Your task to perform on an android device: stop showing notifications on the lock screen Image 0: 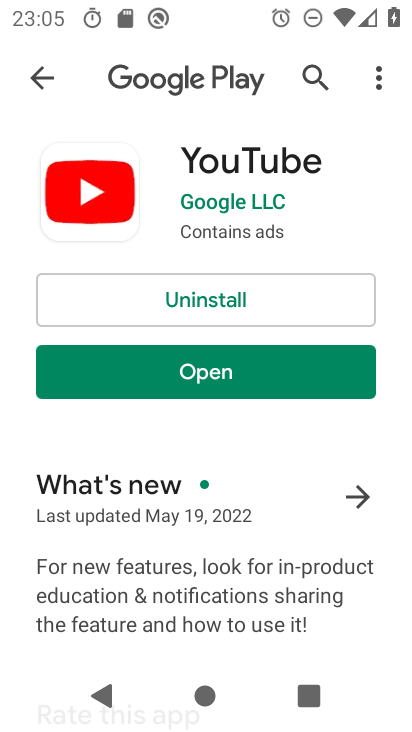
Step 0: press home button
Your task to perform on an android device: stop showing notifications on the lock screen Image 1: 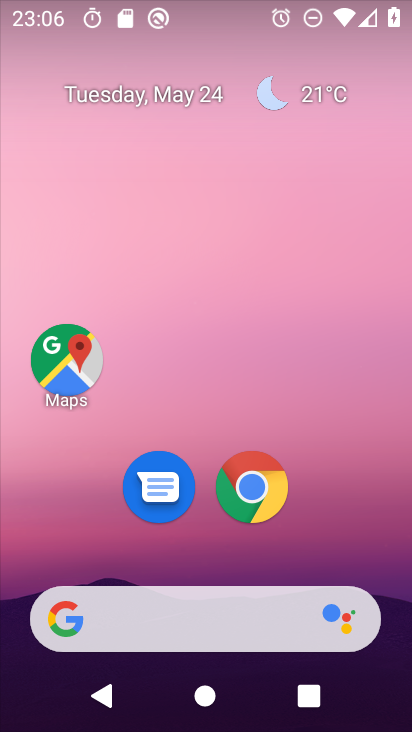
Step 1: drag from (325, 569) to (323, 12)
Your task to perform on an android device: stop showing notifications on the lock screen Image 2: 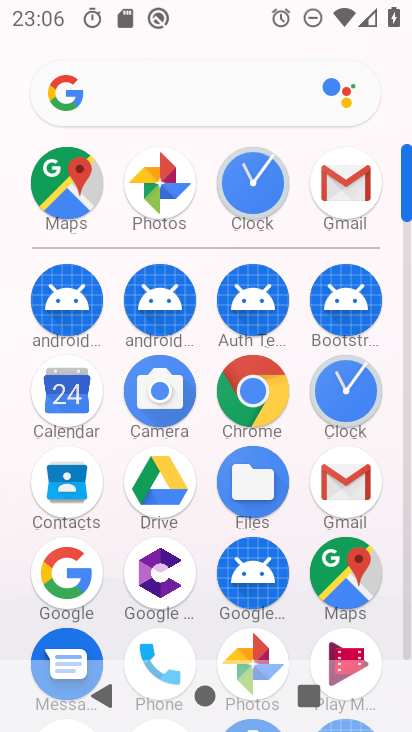
Step 2: click (406, 485)
Your task to perform on an android device: stop showing notifications on the lock screen Image 3: 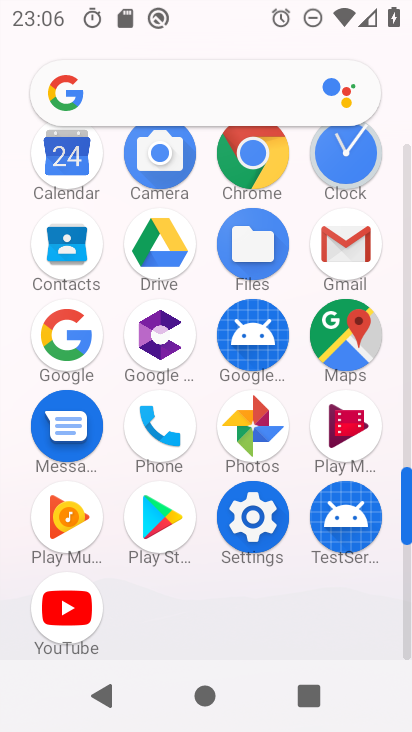
Step 3: click (260, 526)
Your task to perform on an android device: stop showing notifications on the lock screen Image 4: 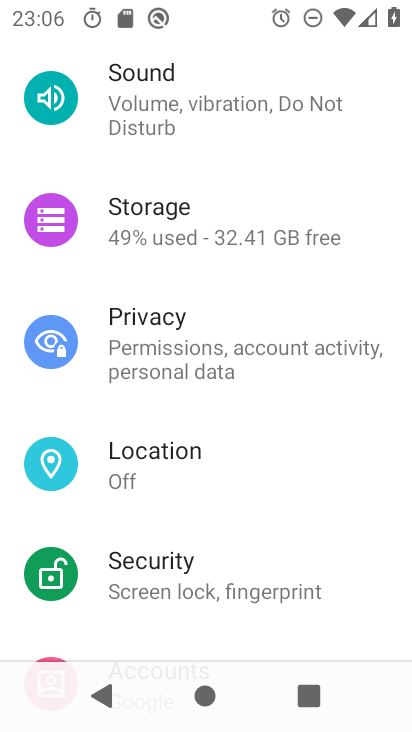
Step 4: drag from (243, 169) to (260, 664)
Your task to perform on an android device: stop showing notifications on the lock screen Image 5: 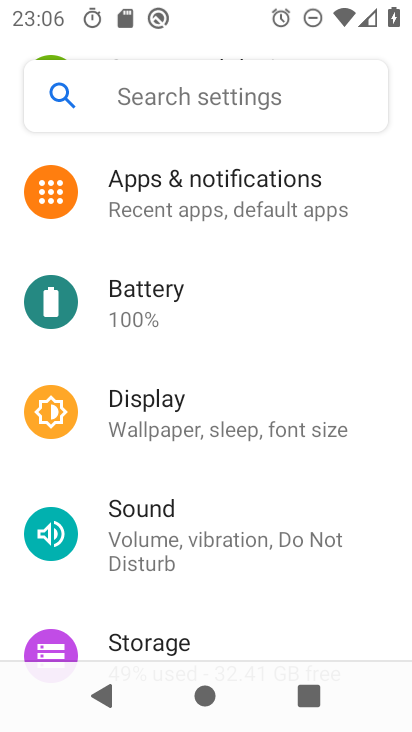
Step 5: click (194, 206)
Your task to perform on an android device: stop showing notifications on the lock screen Image 6: 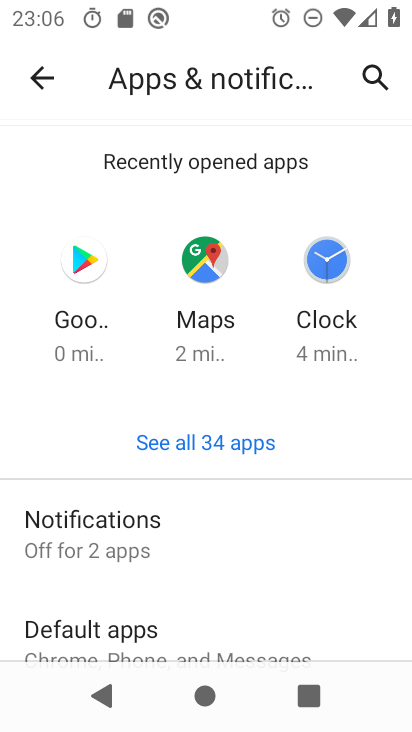
Step 6: click (111, 543)
Your task to perform on an android device: stop showing notifications on the lock screen Image 7: 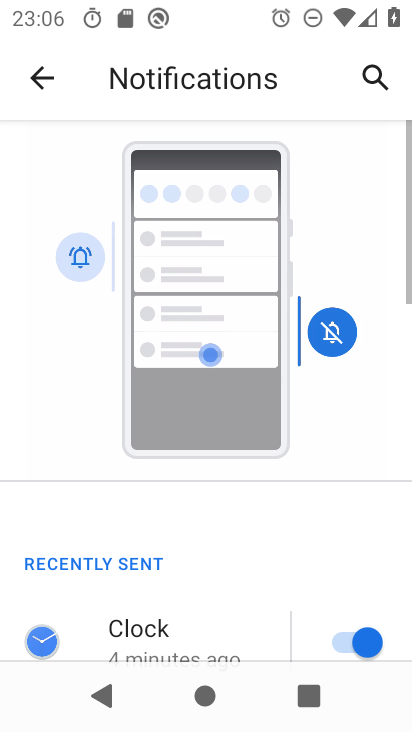
Step 7: drag from (202, 591) to (202, 158)
Your task to perform on an android device: stop showing notifications on the lock screen Image 8: 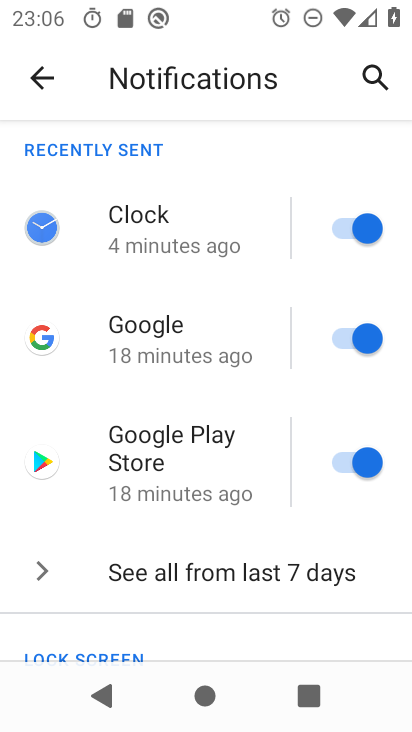
Step 8: drag from (147, 464) to (147, 167)
Your task to perform on an android device: stop showing notifications on the lock screen Image 9: 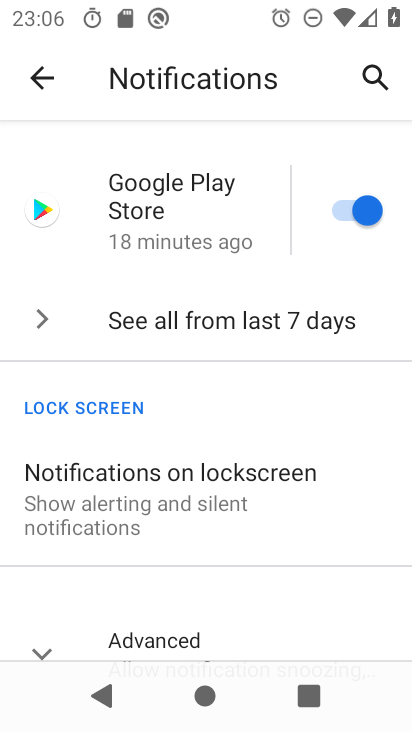
Step 9: click (127, 479)
Your task to perform on an android device: stop showing notifications on the lock screen Image 10: 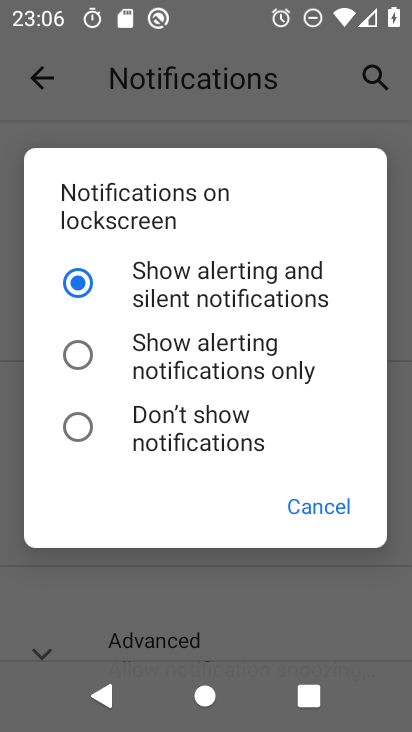
Step 10: click (70, 433)
Your task to perform on an android device: stop showing notifications on the lock screen Image 11: 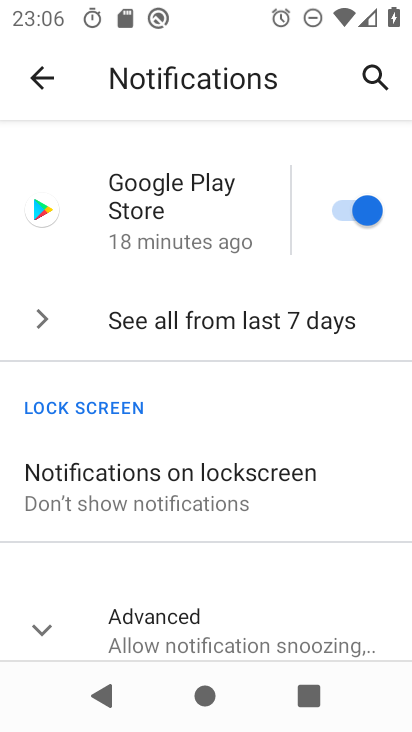
Step 11: task complete